Your task to perform on an android device: Go to network settings Image 0: 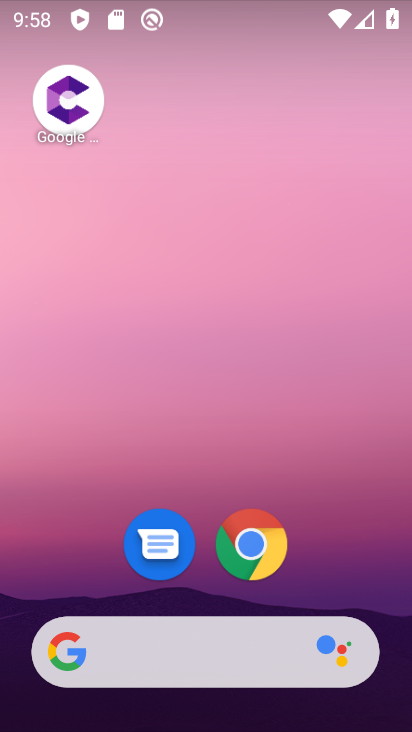
Step 0: drag from (99, 617) to (240, 119)
Your task to perform on an android device: Go to network settings Image 1: 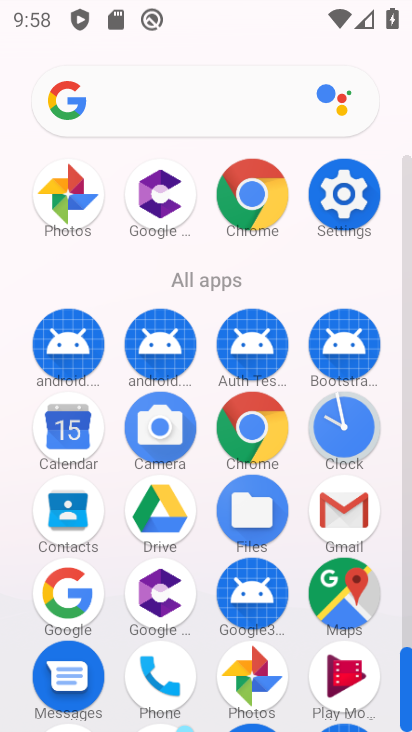
Step 1: click (335, 177)
Your task to perform on an android device: Go to network settings Image 2: 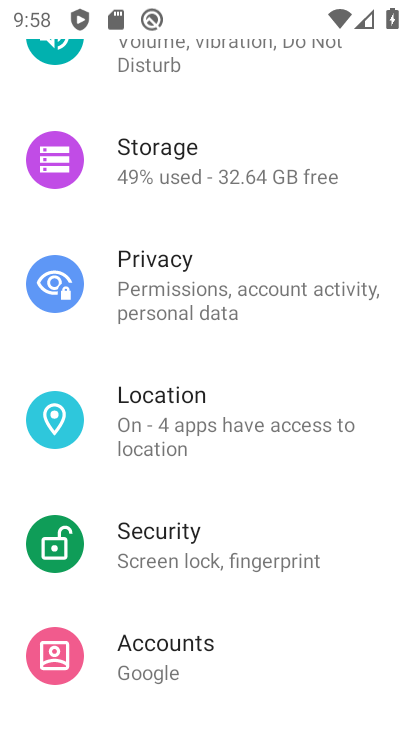
Step 2: drag from (263, 148) to (185, 583)
Your task to perform on an android device: Go to network settings Image 3: 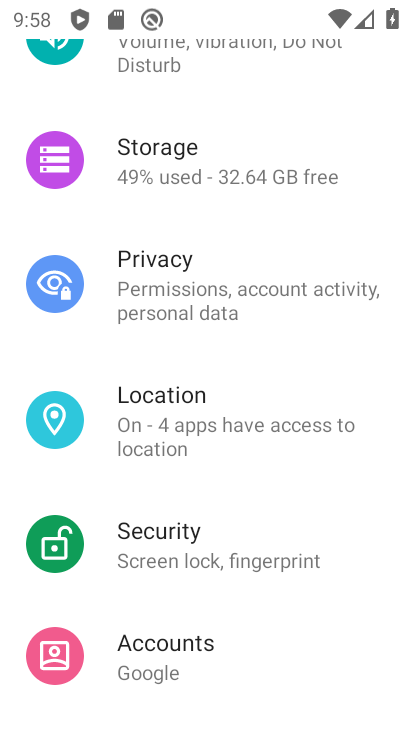
Step 3: drag from (323, 116) to (244, 546)
Your task to perform on an android device: Go to network settings Image 4: 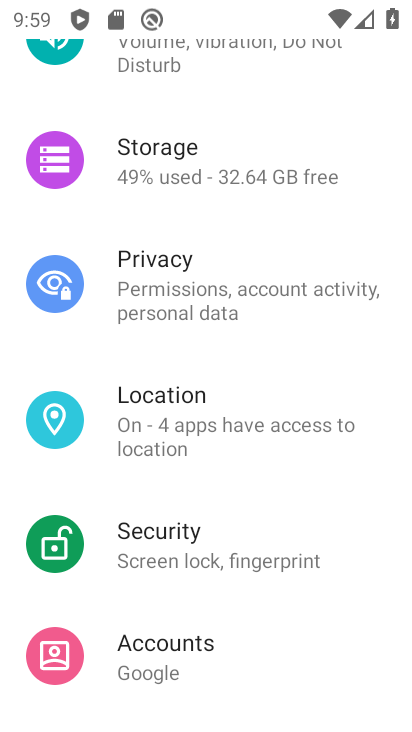
Step 4: drag from (323, 98) to (326, 637)
Your task to perform on an android device: Go to network settings Image 5: 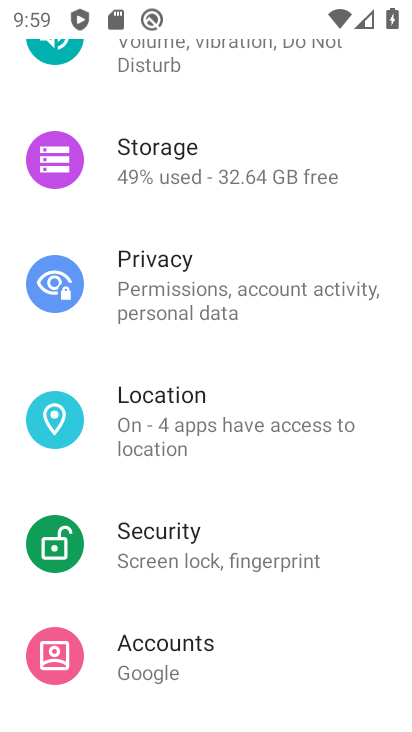
Step 5: drag from (328, 131) to (294, 596)
Your task to perform on an android device: Go to network settings Image 6: 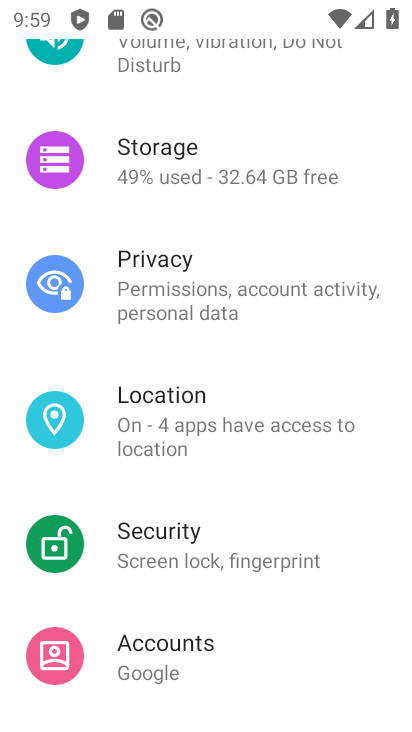
Step 6: drag from (244, 168) to (250, 671)
Your task to perform on an android device: Go to network settings Image 7: 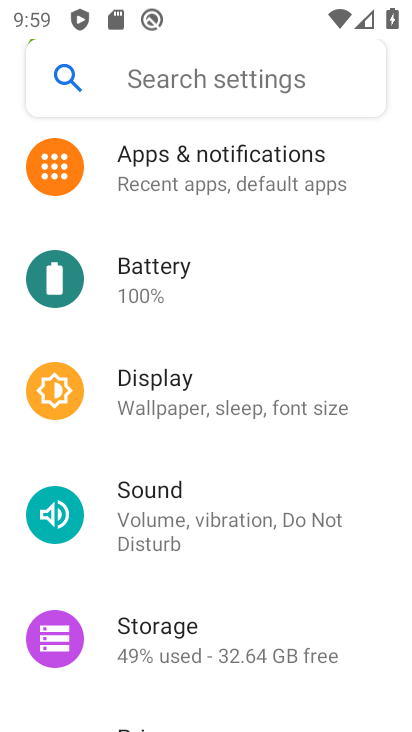
Step 7: drag from (252, 266) to (242, 707)
Your task to perform on an android device: Go to network settings Image 8: 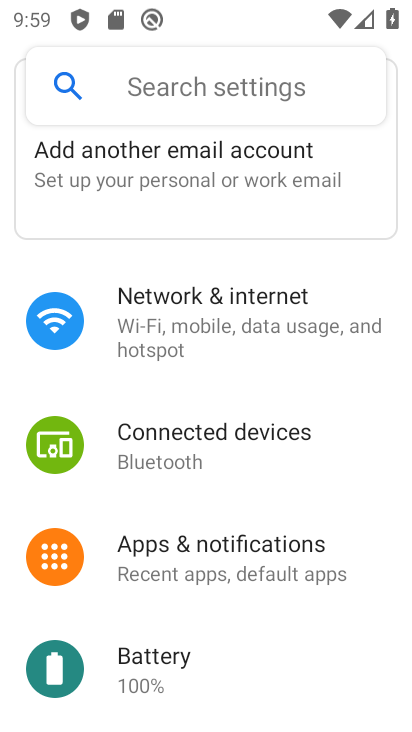
Step 8: click (259, 326)
Your task to perform on an android device: Go to network settings Image 9: 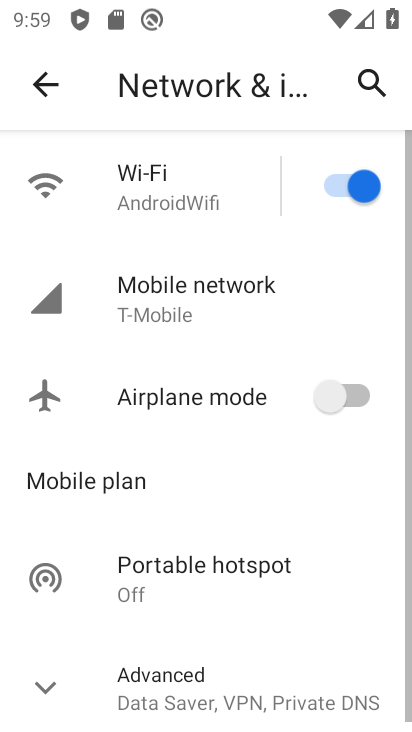
Step 9: click (259, 327)
Your task to perform on an android device: Go to network settings Image 10: 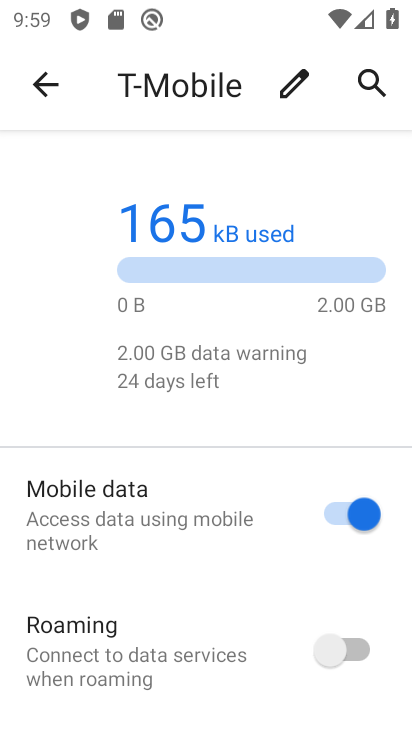
Step 10: task complete